Your task to perform on an android device: manage bookmarks in the chrome app Image 0: 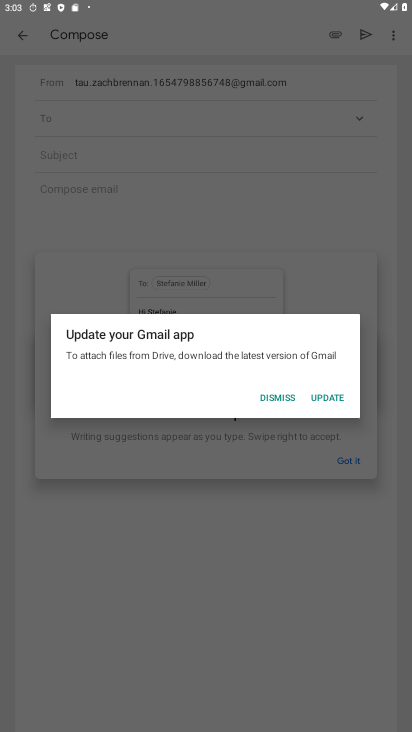
Step 0: press home button
Your task to perform on an android device: manage bookmarks in the chrome app Image 1: 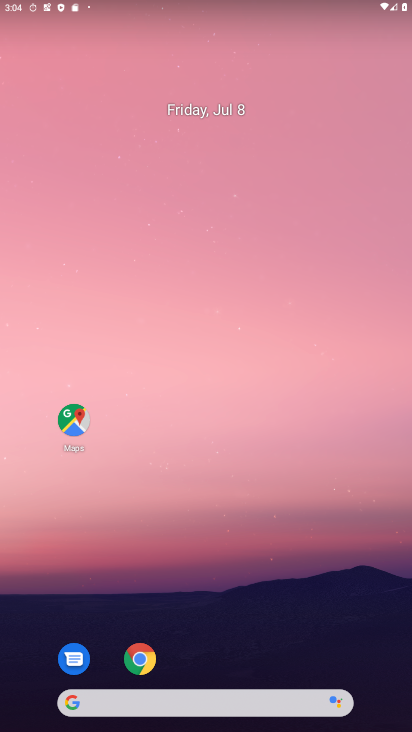
Step 1: click (136, 661)
Your task to perform on an android device: manage bookmarks in the chrome app Image 2: 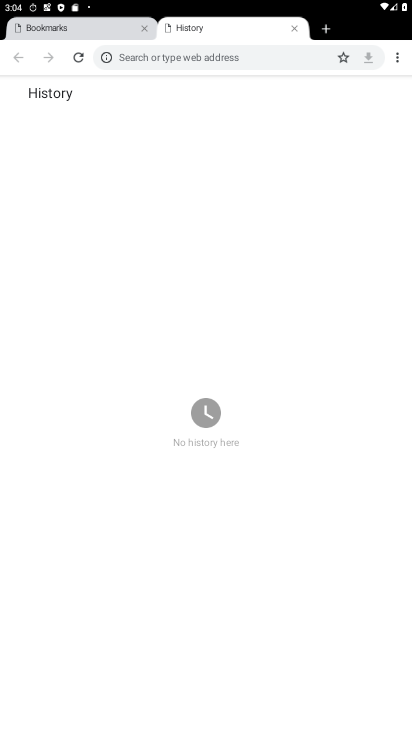
Step 2: click (395, 56)
Your task to perform on an android device: manage bookmarks in the chrome app Image 3: 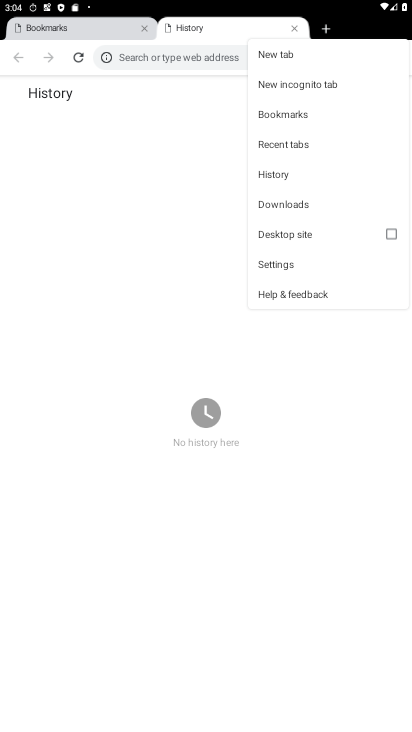
Step 3: click (332, 117)
Your task to perform on an android device: manage bookmarks in the chrome app Image 4: 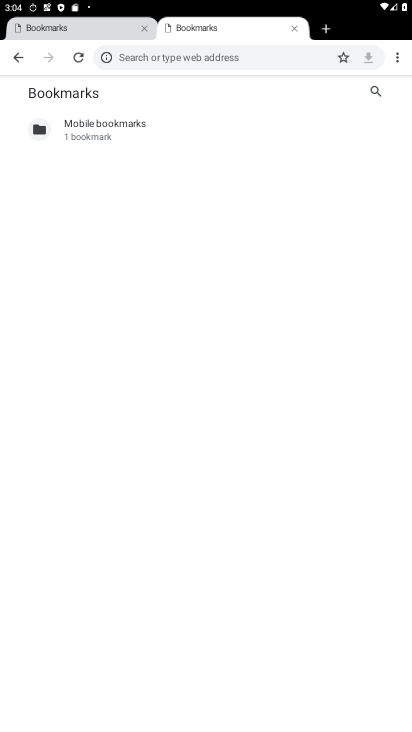
Step 4: click (399, 53)
Your task to perform on an android device: manage bookmarks in the chrome app Image 5: 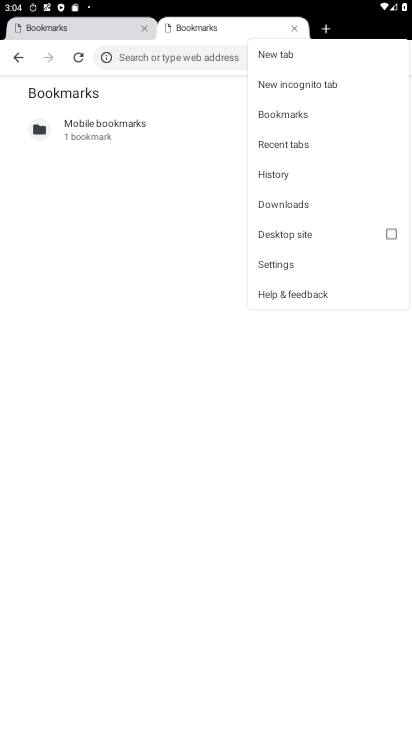
Step 5: click (234, 225)
Your task to perform on an android device: manage bookmarks in the chrome app Image 6: 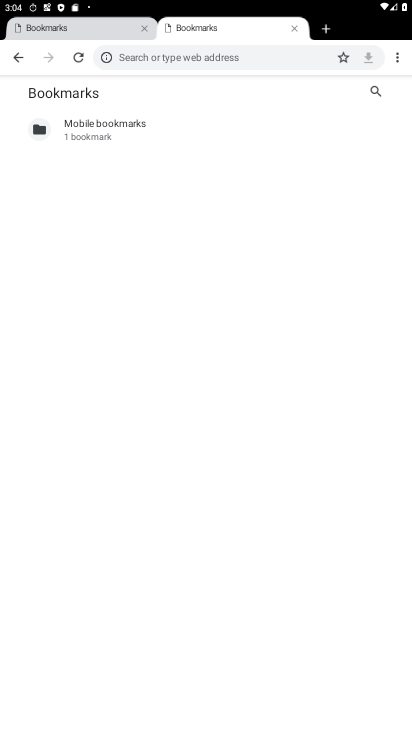
Step 6: click (346, 57)
Your task to perform on an android device: manage bookmarks in the chrome app Image 7: 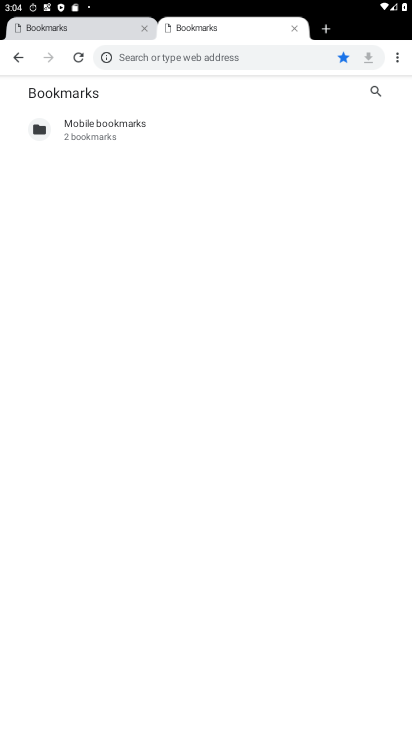
Step 7: task complete